Your task to perform on an android device: turn on javascript in the chrome app Image 0: 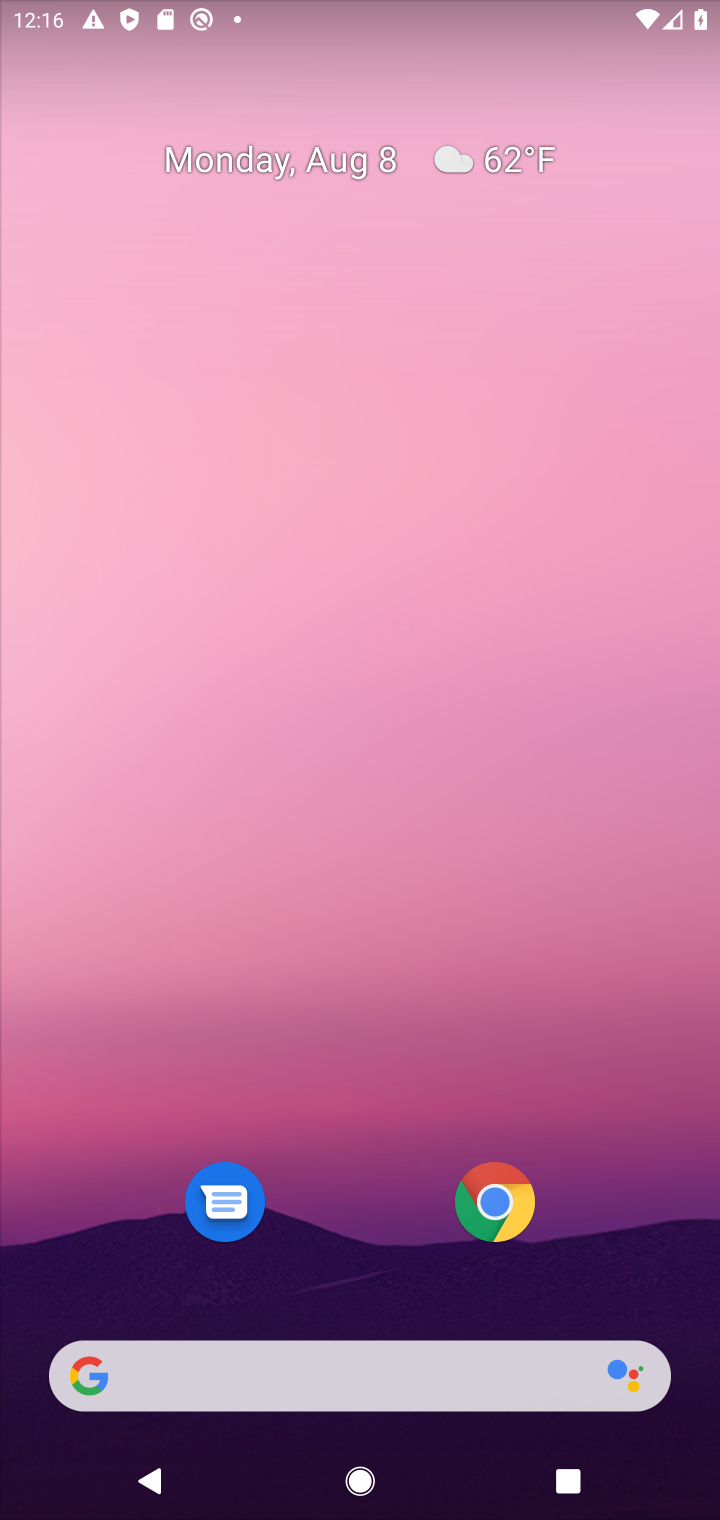
Step 0: press home button
Your task to perform on an android device: turn on javascript in the chrome app Image 1: 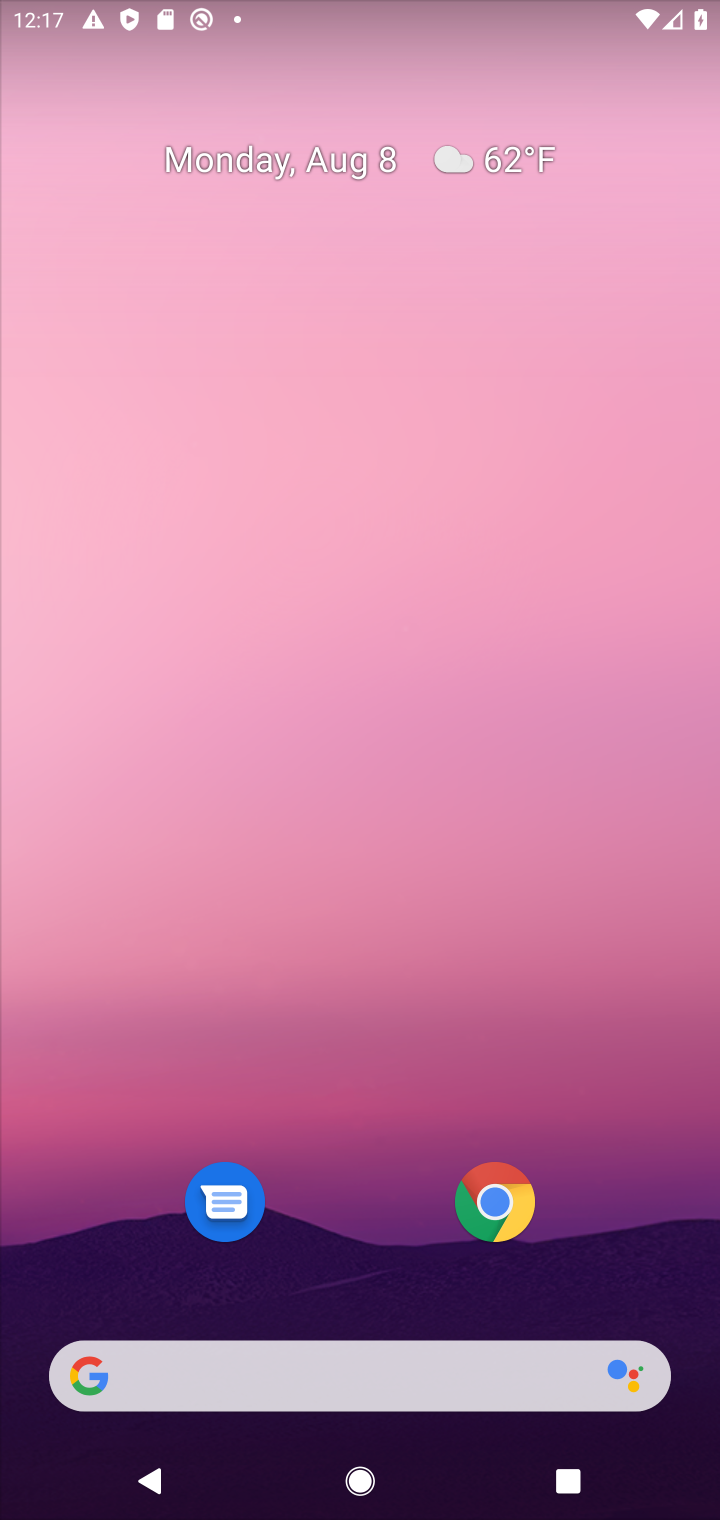
Step 1: click (503, 1207)
Your task to perform on an android device: turn on javascript in the chrome app Image 2: 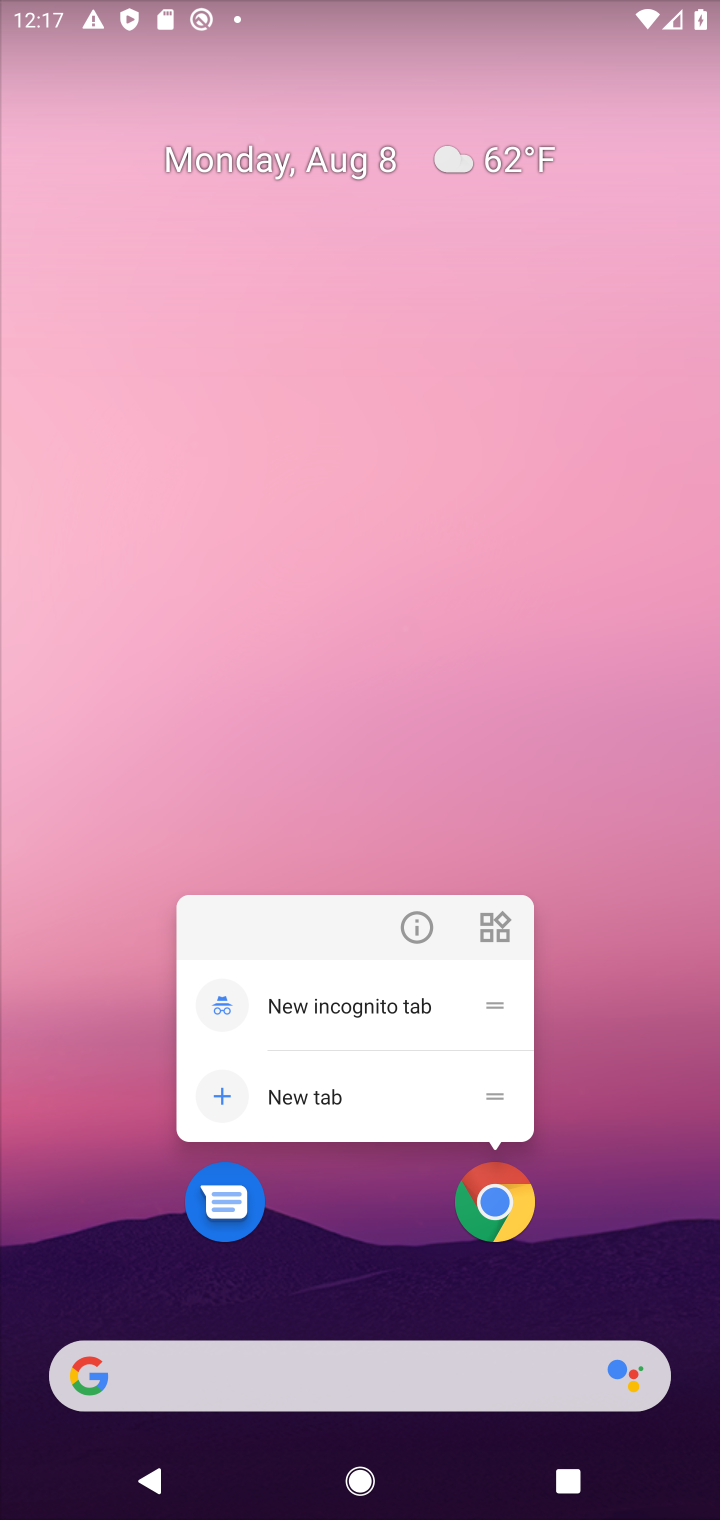
Step 2: click (503, 1207)
Your task to perform on an android device: turn on javascript in the chrome app Image 3: 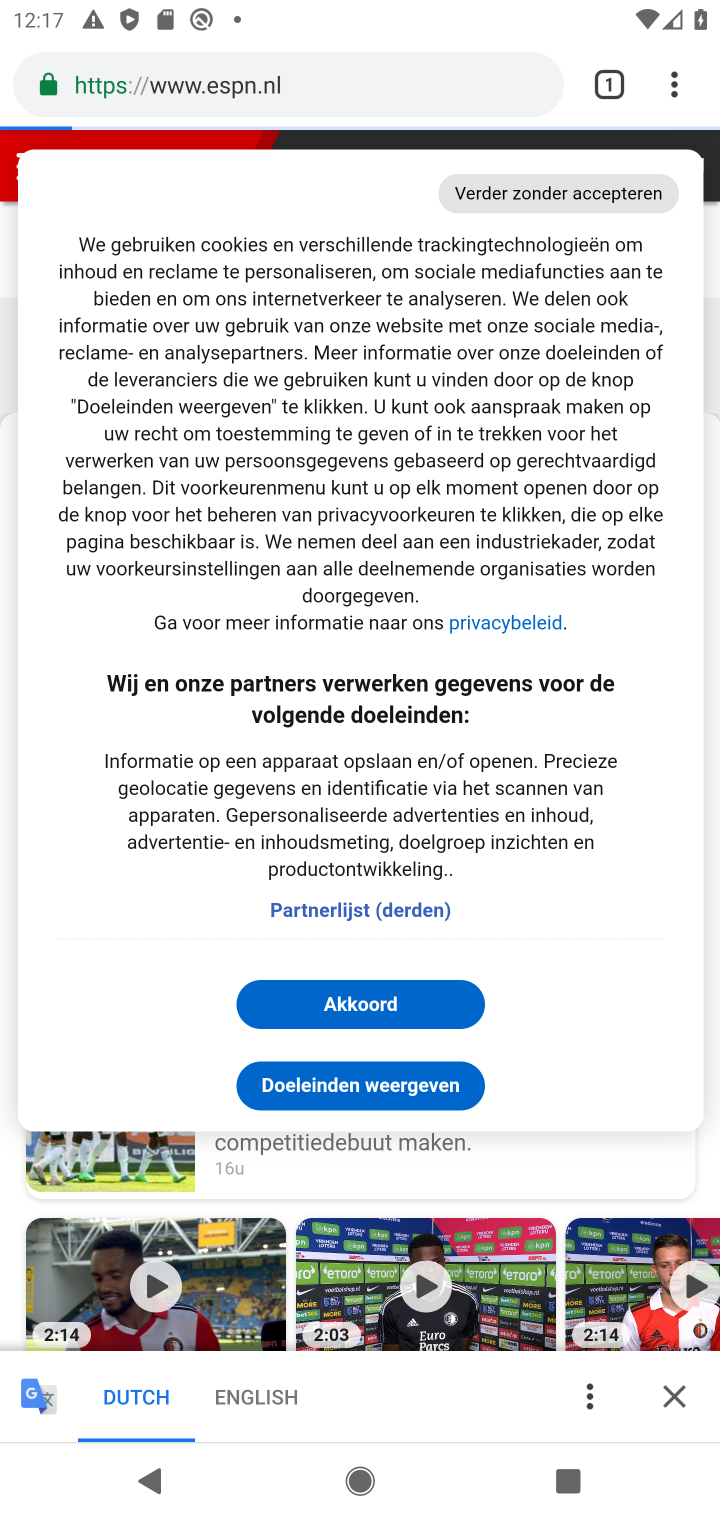
Step 3: click (674, 93)
Your task to perform on an android device: turn on javascript in the chrome app Image 4: 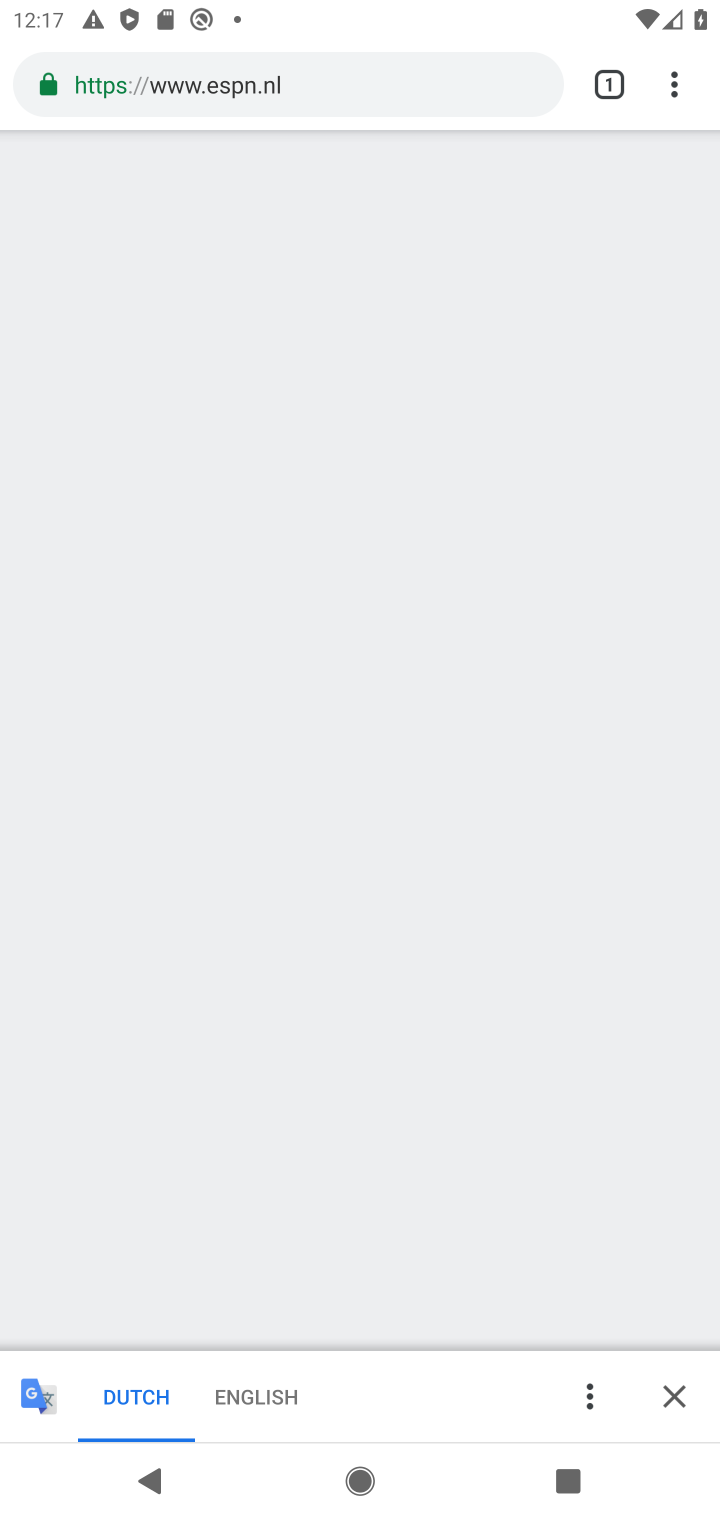
Step 4: click (677, 86)
Your task to perform on an android device: turn on javascript in the chrome app Image 5: 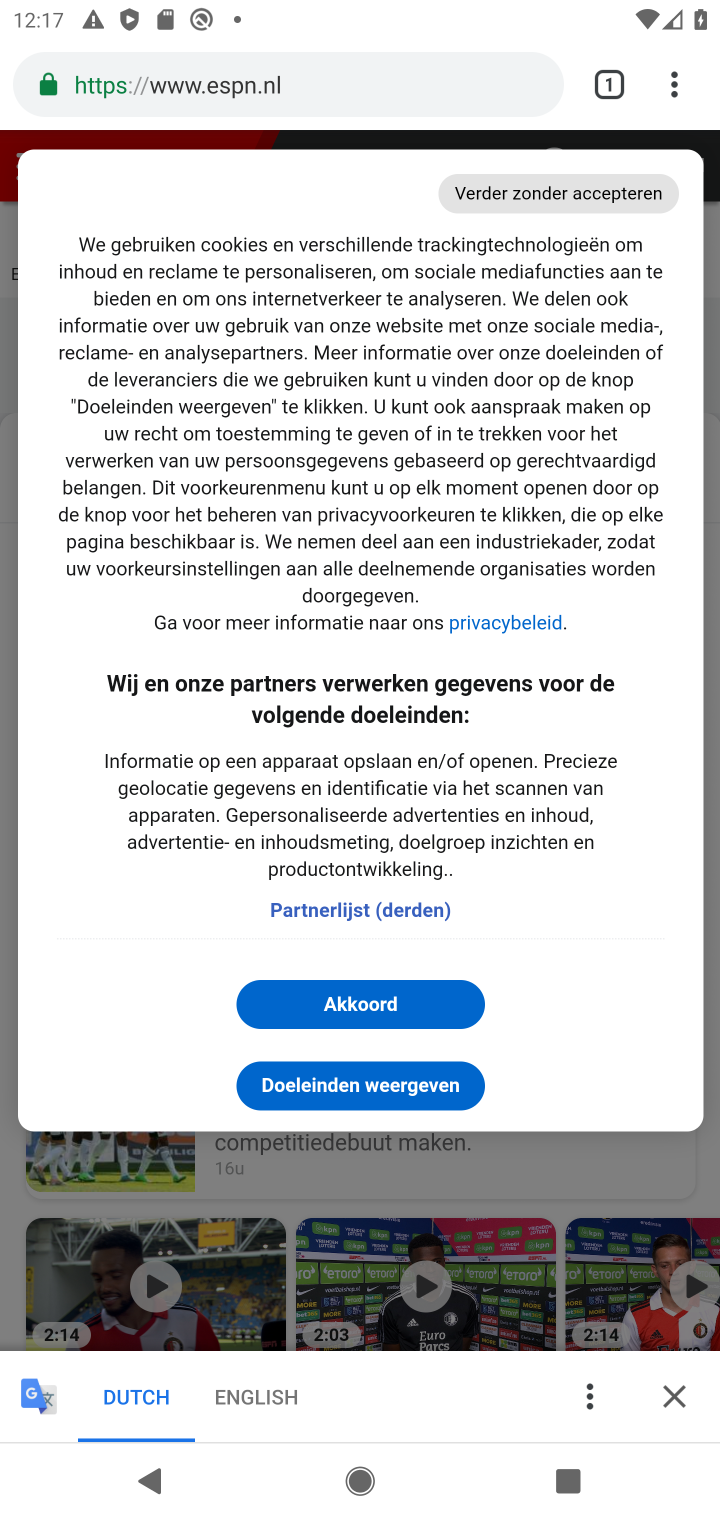
Step 5: click (677, 86)
Your task to perform on an android device: turn on javascript in the chrome app Image 6: 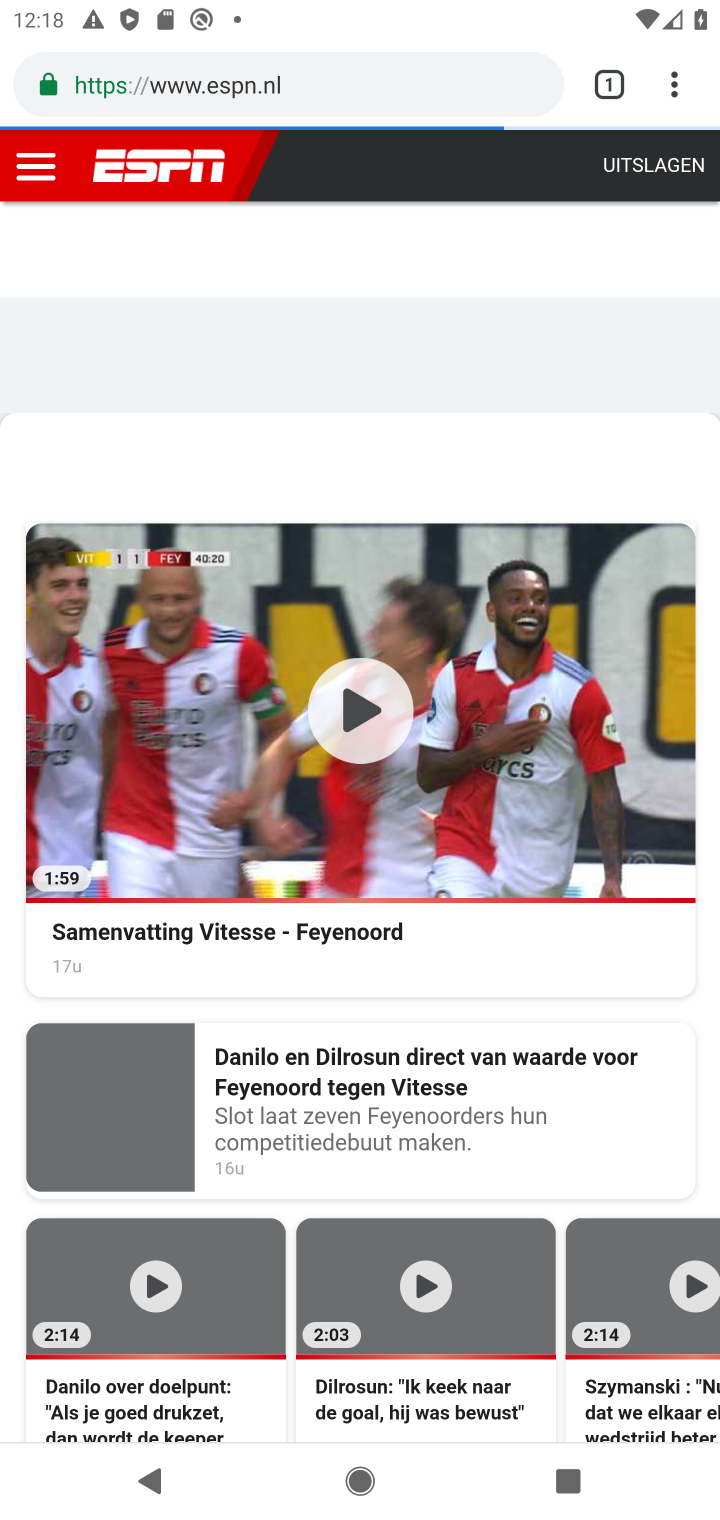
Step 6: click (673, 95)
Your task to perform on an android device: turn on javascript in the chrome app Image 7: 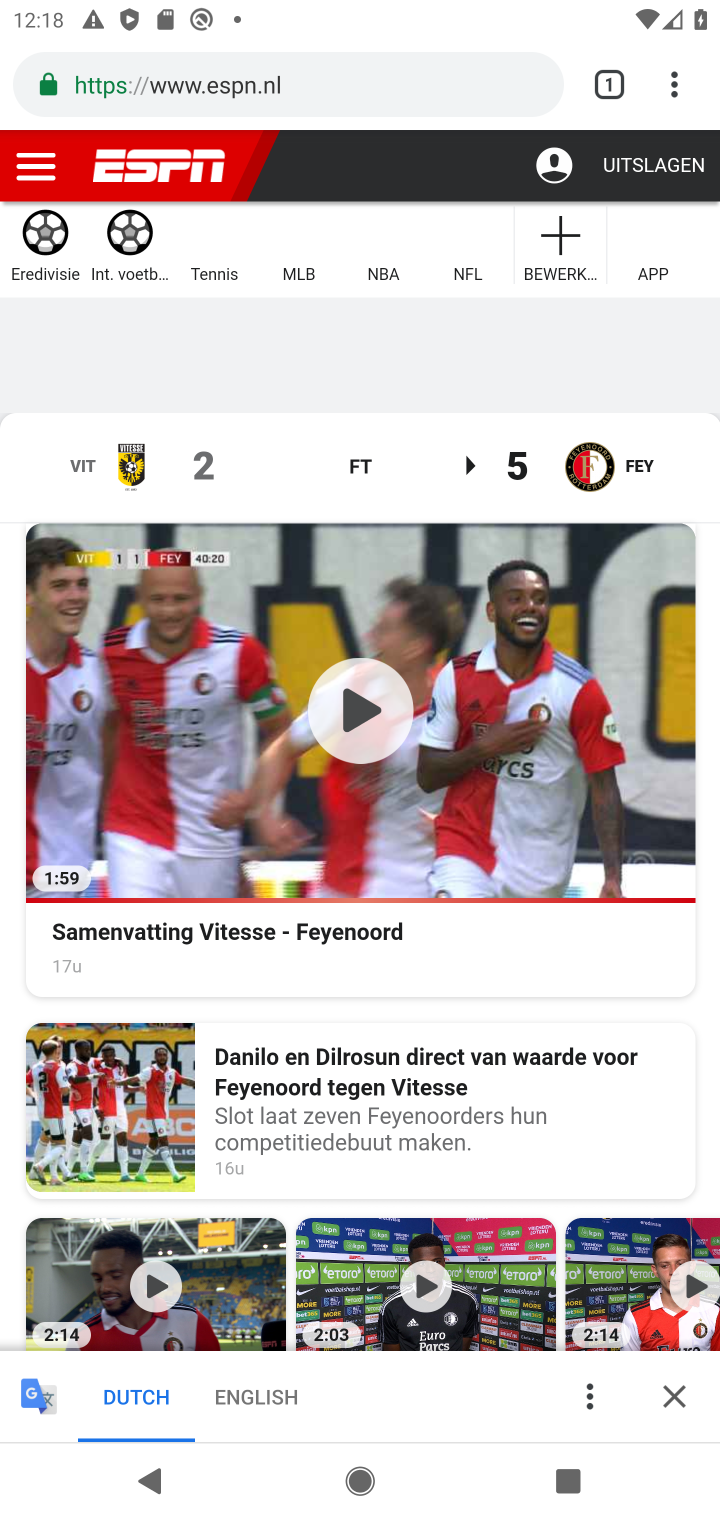
Step 7: click (673, 85)
Your task to perform on an android device: turn on javascript in the chrome app Image 8: 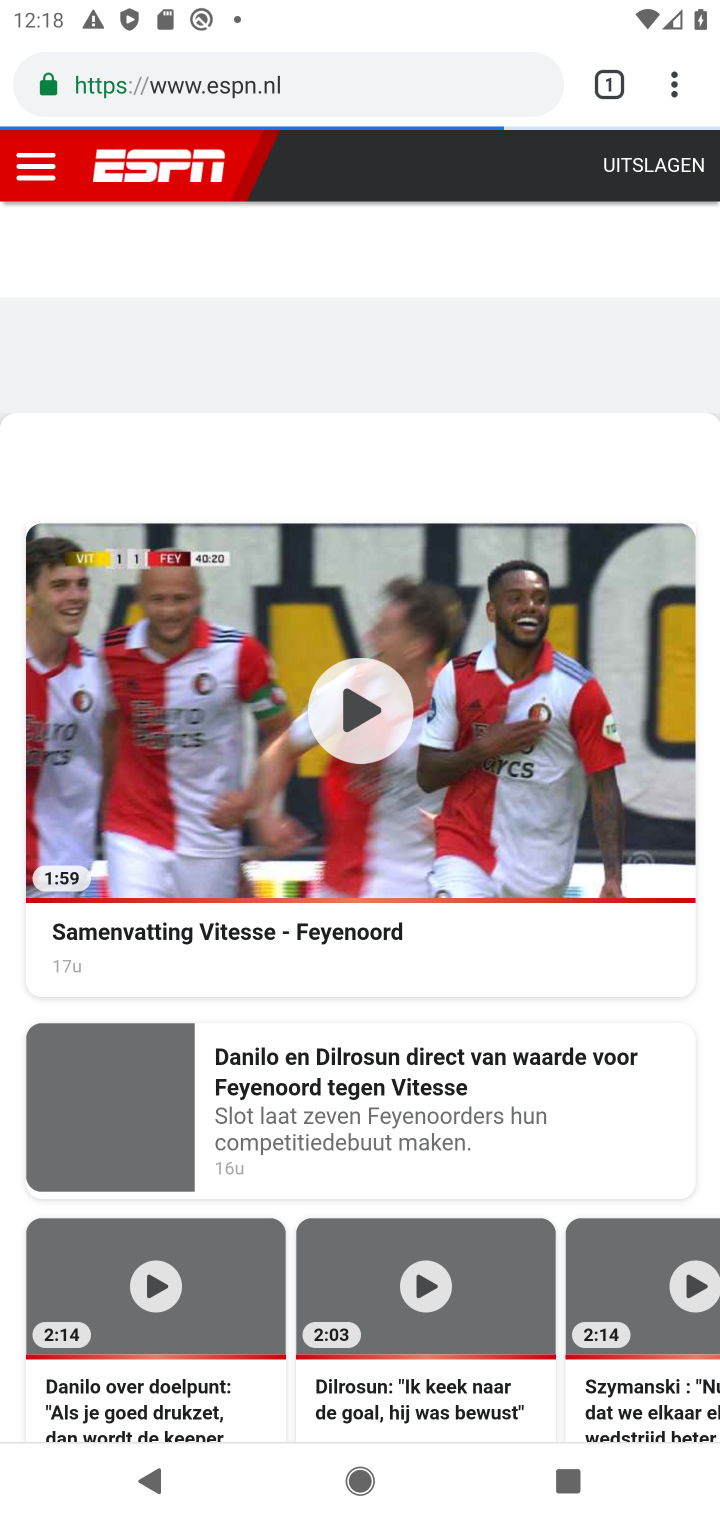
Step 8: click (673, 85)
Your task to perform on an android device: turn on javascript in the chrome app Image 9: 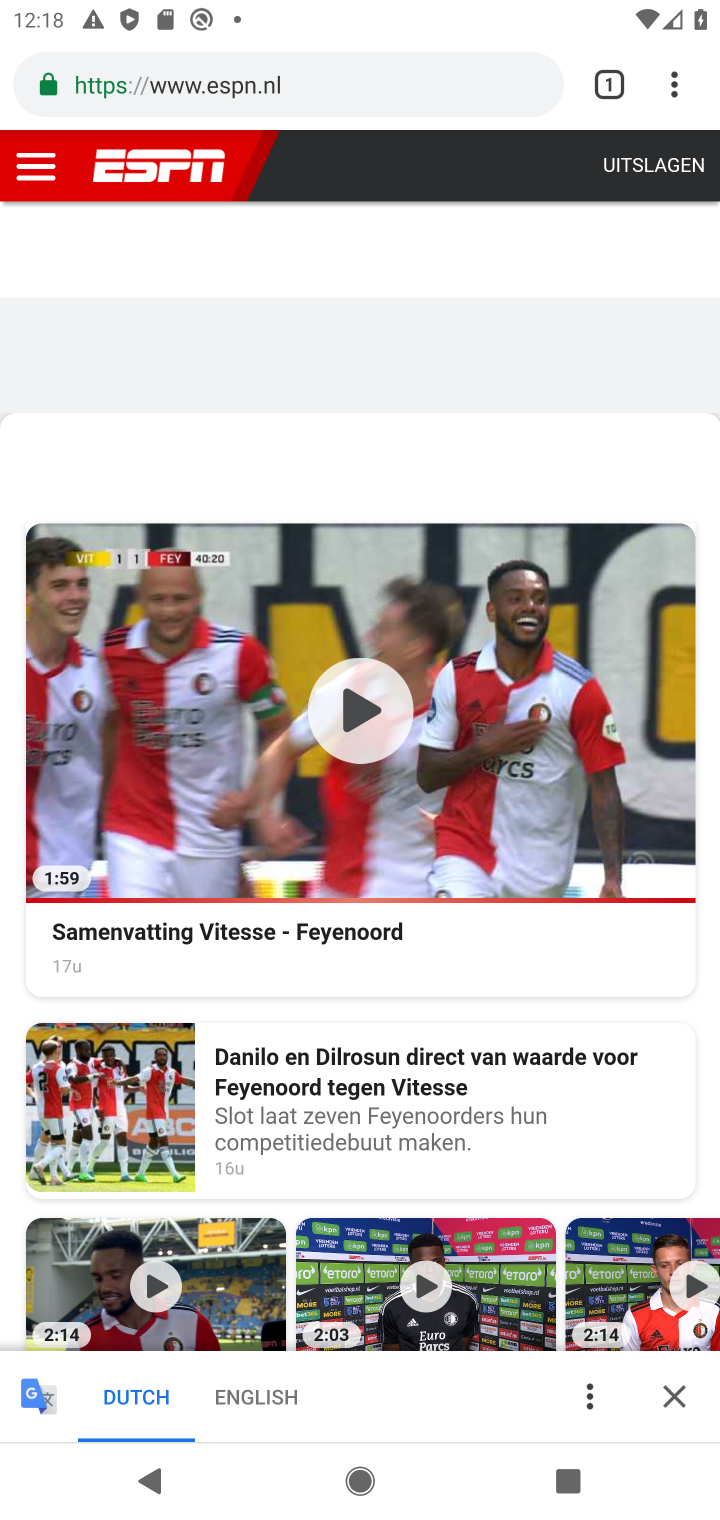
Step 9: click (676, 85)
Your task to perform on an android device: turn on javascript in the chrome app Image 10: 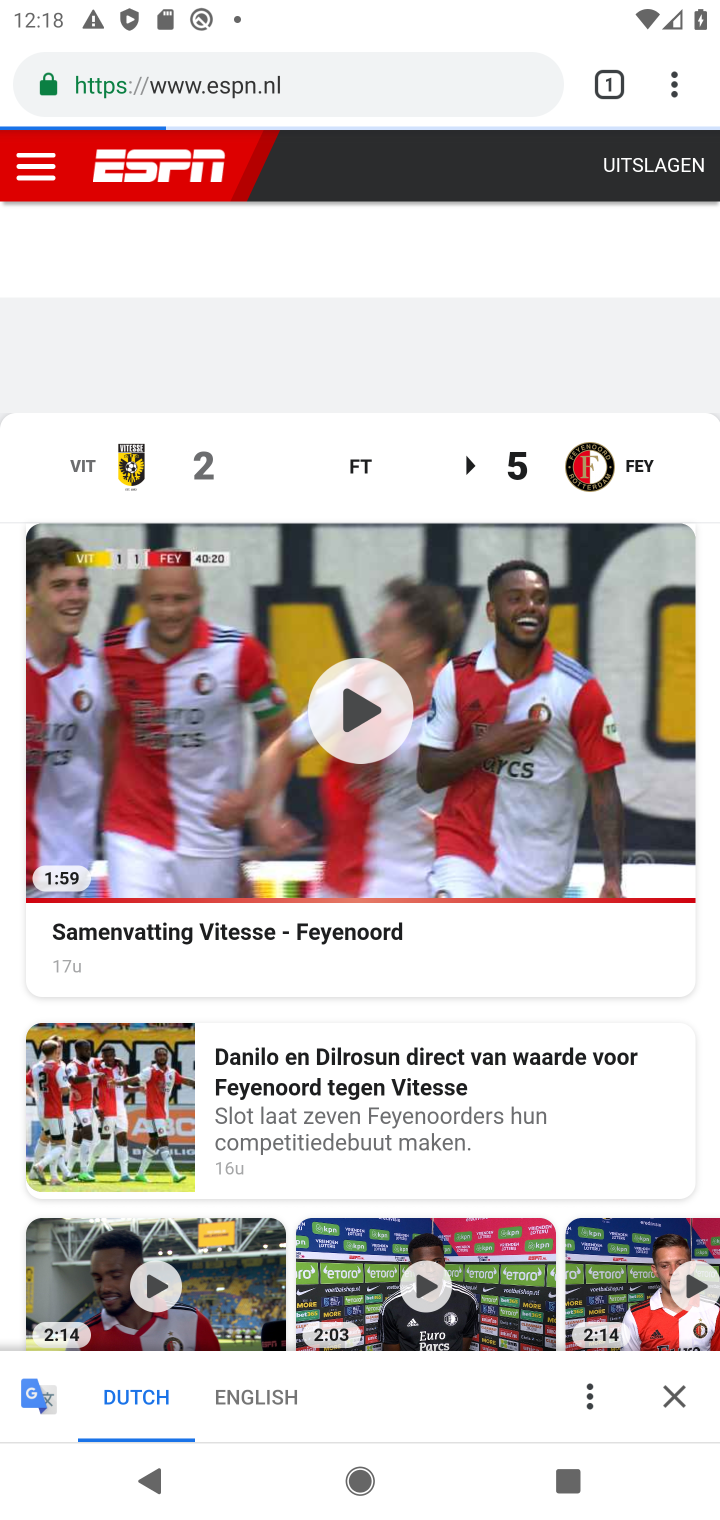
Step 10: click (674, 86)
Your task to perform on an android device: turn on javascript in the chrome app Image 11: 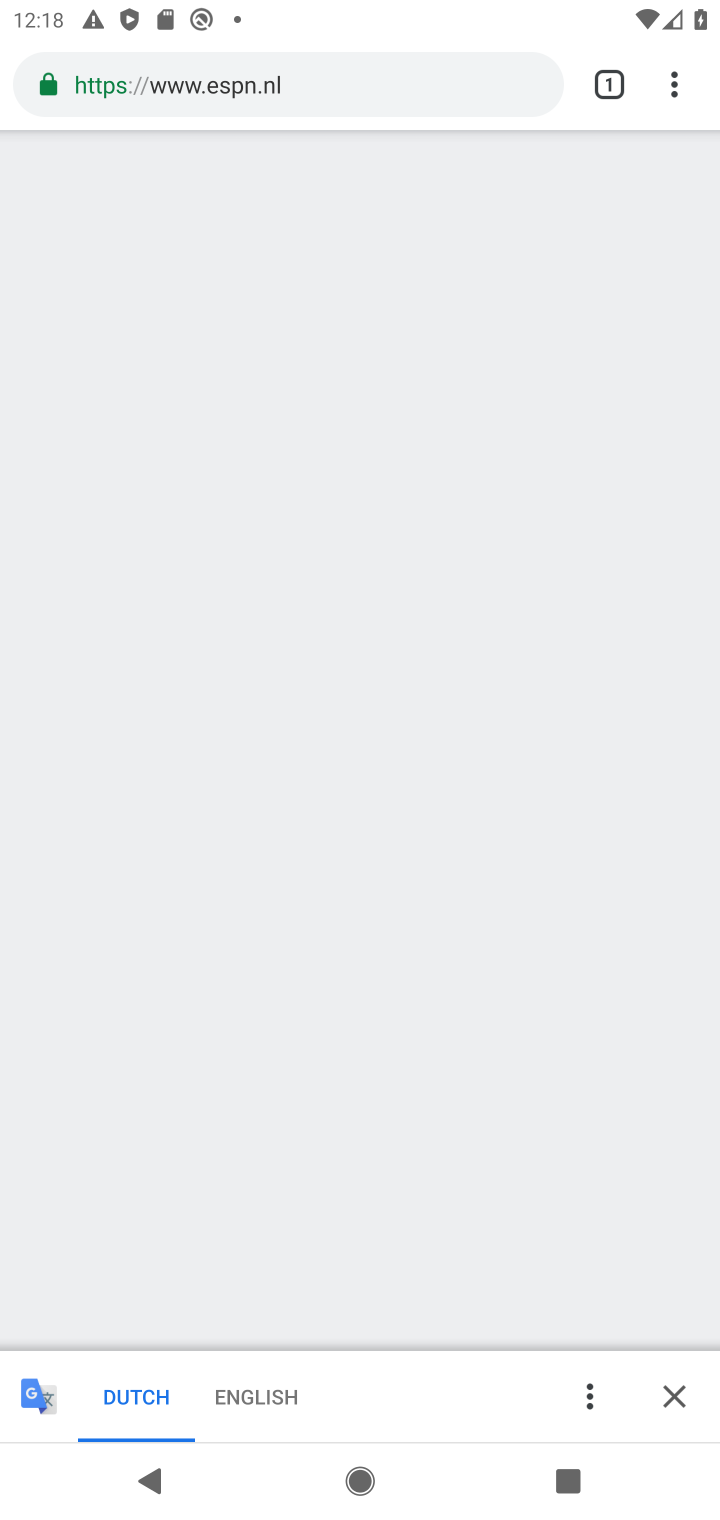
Step 11: click (672, 93)
Your task to perform on an android device: turn on javascript in the chrome app Image 12: 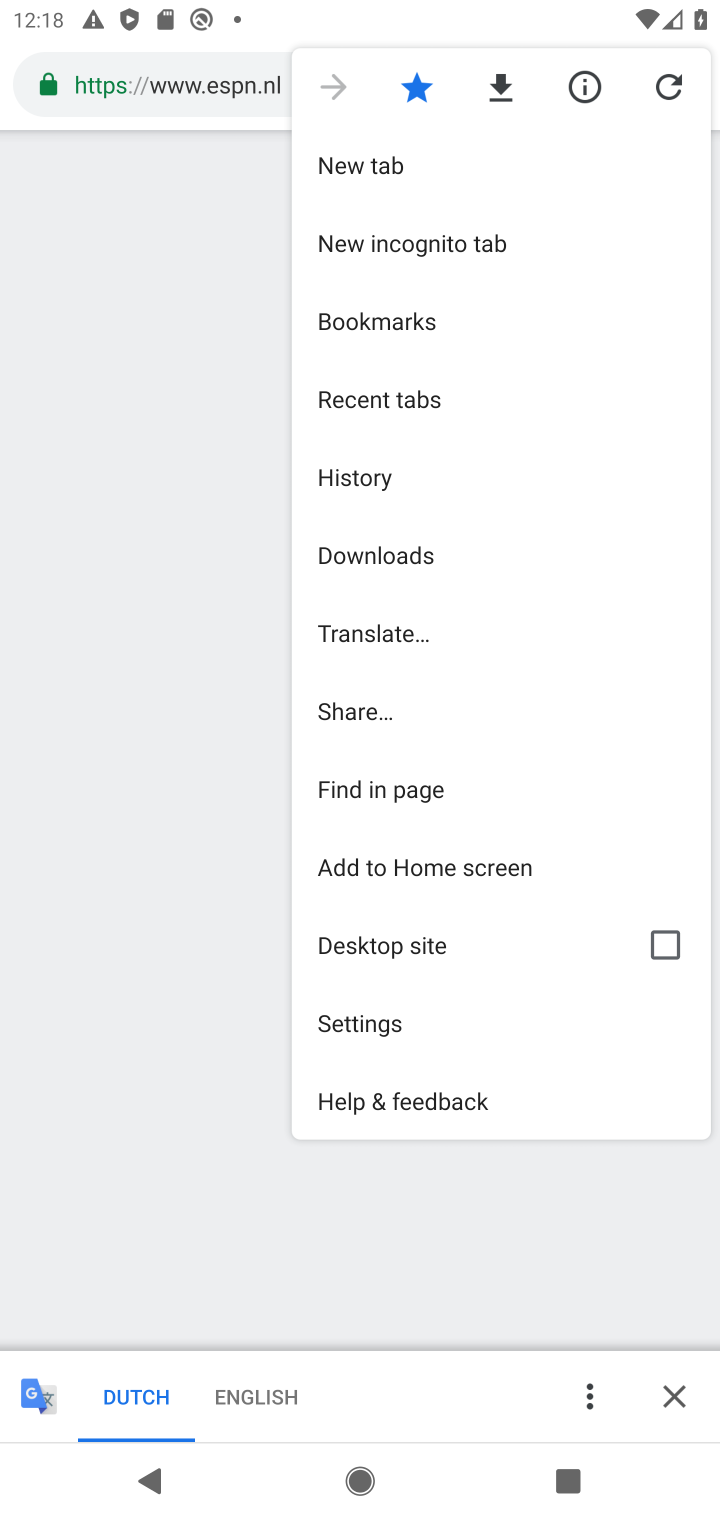
Step 12: click (366, 1026)
Your task to perform on an android device: turn on javascript in the chrome app Image 13: 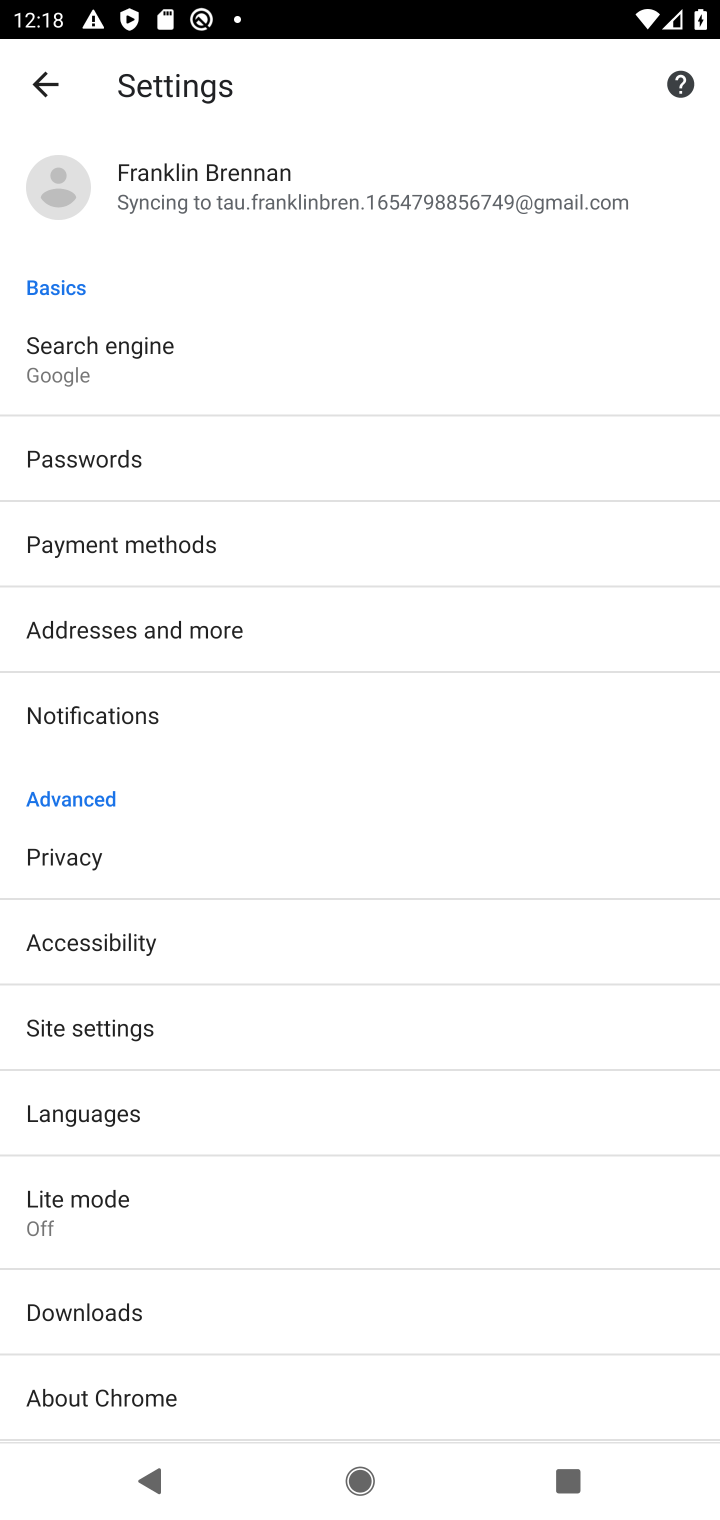
Step 13: click (115, 1022)
Your task to perform on an android device: turn on javascript in the chrome app Image 14: 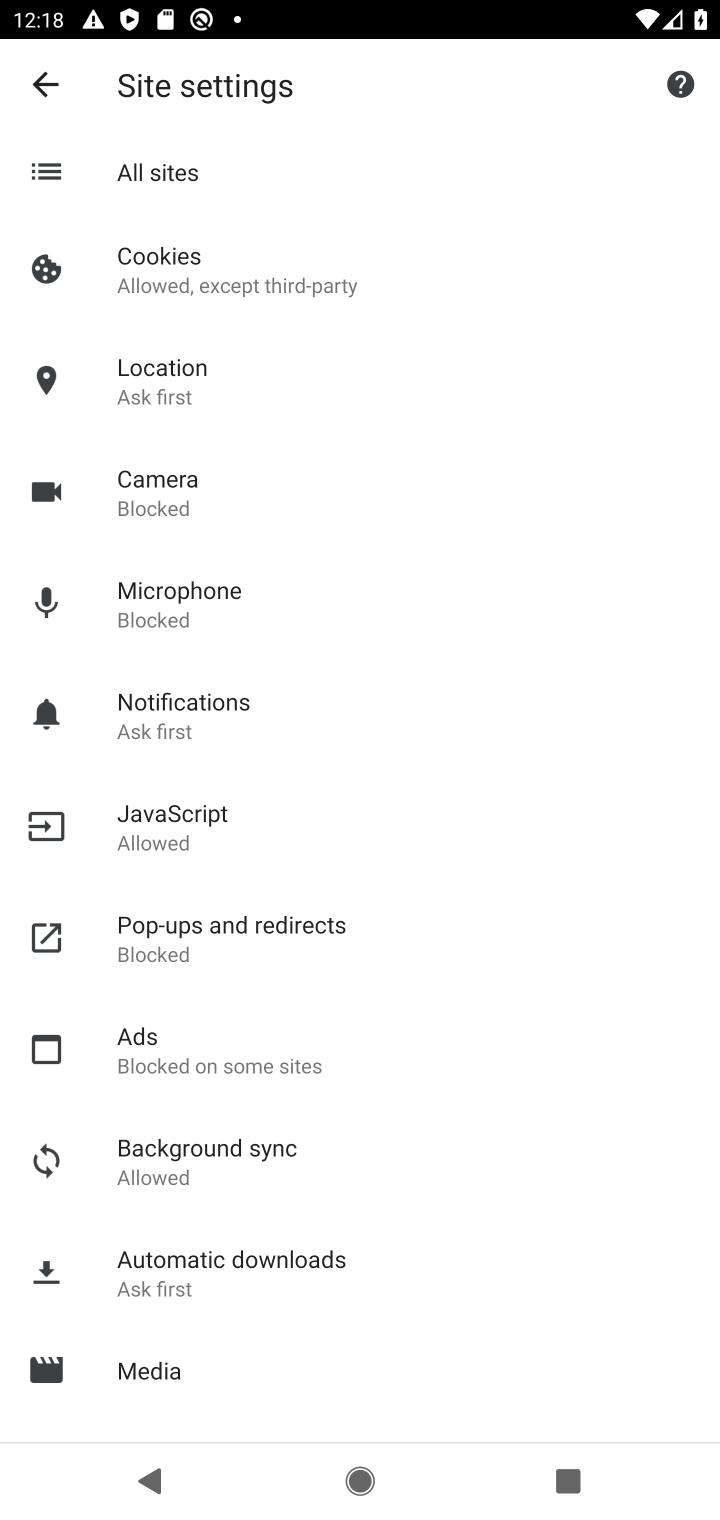
Step 14: click (178, 833)
Your task to perform on an android device: turn on javascript in the chrome app Image 15: 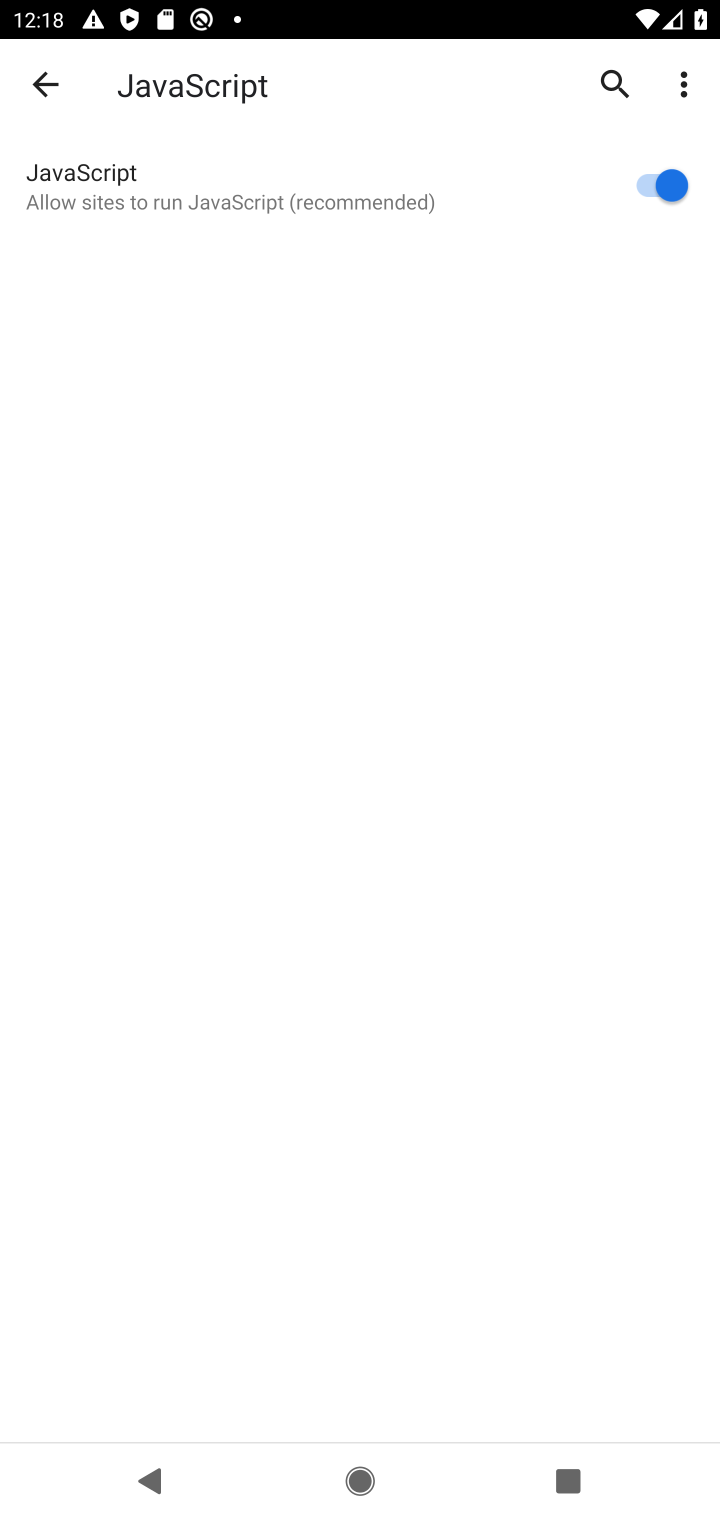
Step 15: task complete